Your task to perform on an android device: uninstall "Speedtest by Ookla" Image 0: 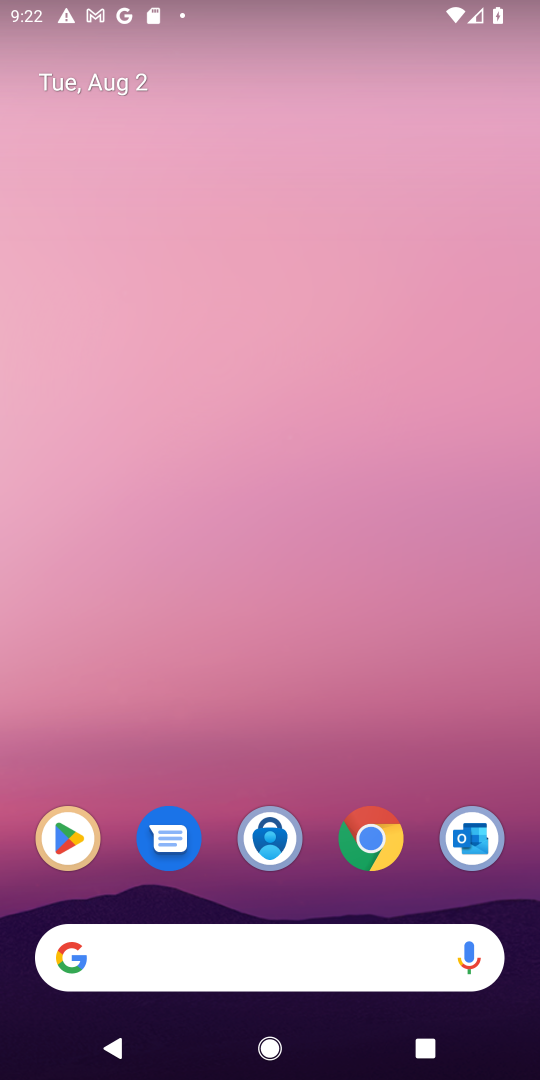
Step 0: drag from (305, 788) to (305, 95)
Your task to perform on an android device: uninstall "Speedtest by Ookla" Image 1: 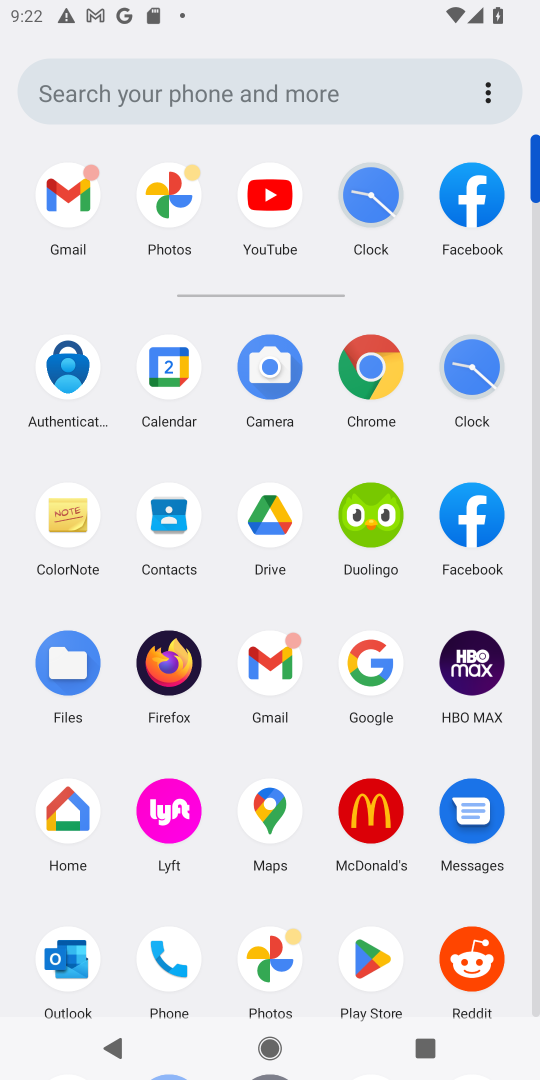
Step 1: click (375, 942)
Your task to perform on an android device: uninstall "Speedtest by Ookla" Image 2: 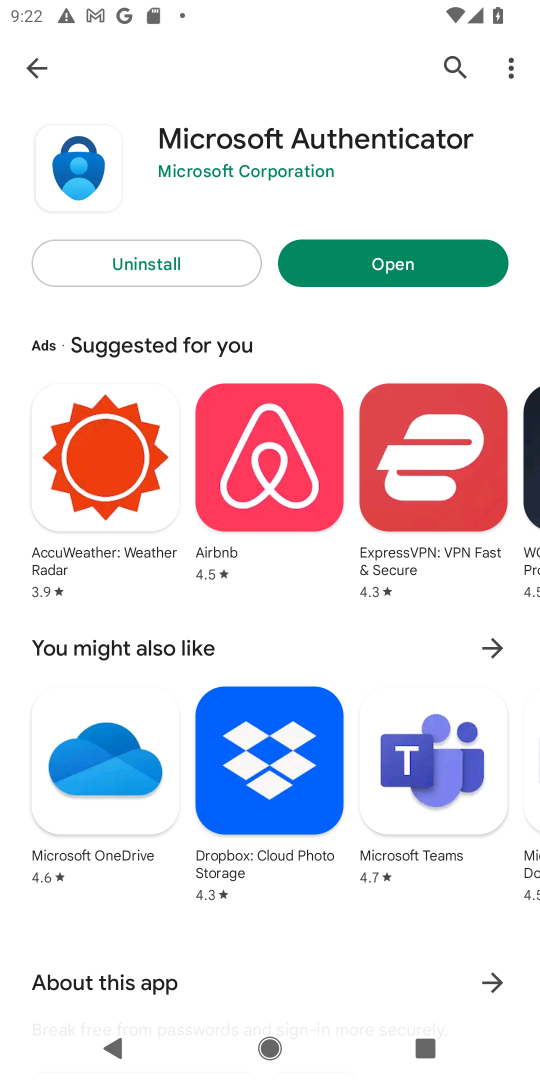
Step 2: click (453, 62)
Your task to perform on an android device: uninstall "Speedtest by Ookla" Image 3: 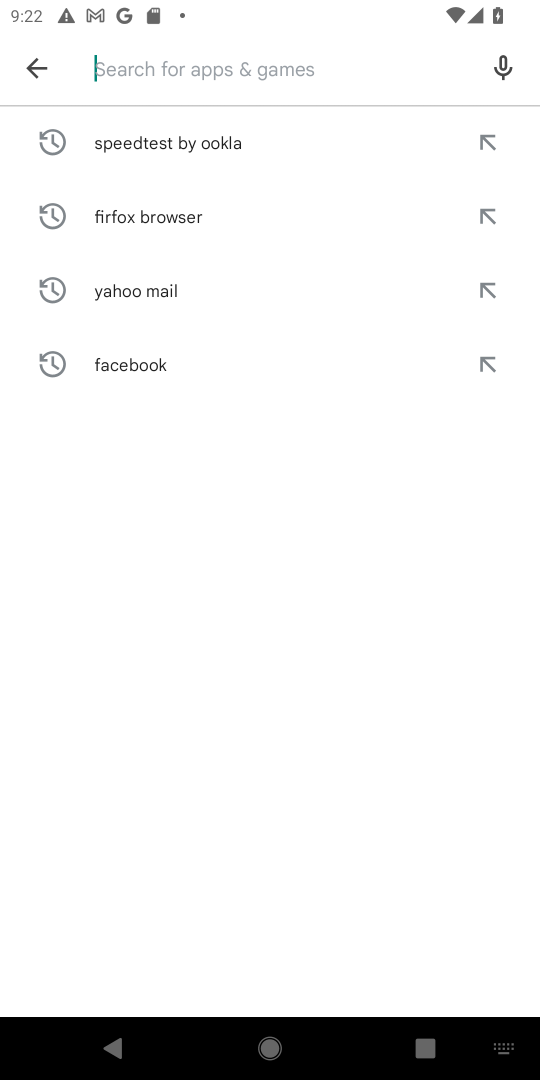
Step 3: click (398, 77)
Your task to perform on an android device: uninstall "Speedtest by Ookla" Image 4: 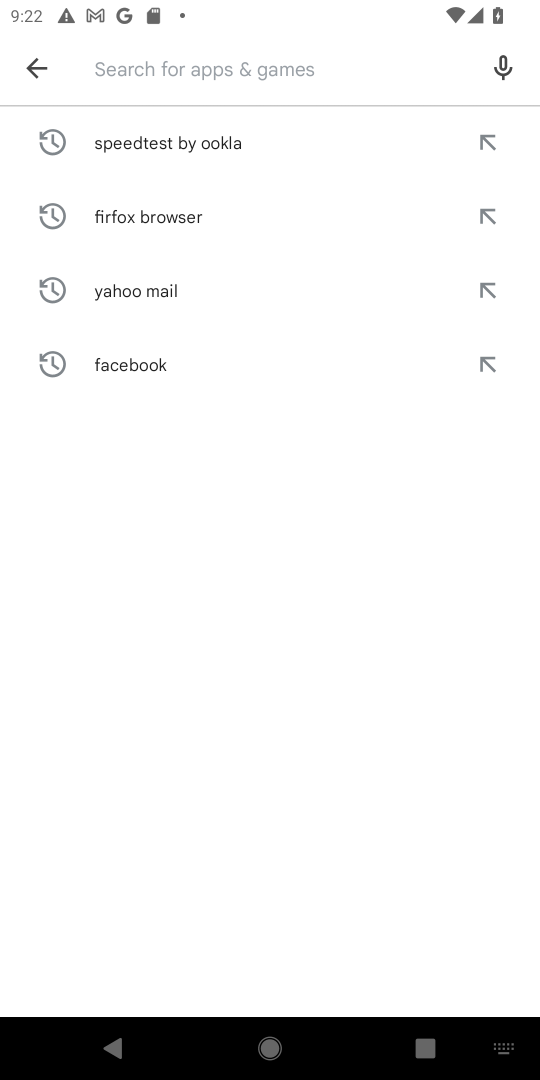
Step 4: click (289, 152)
Your task to perform on an android device: uninstall "Speedtest by Ookla" Image 5: 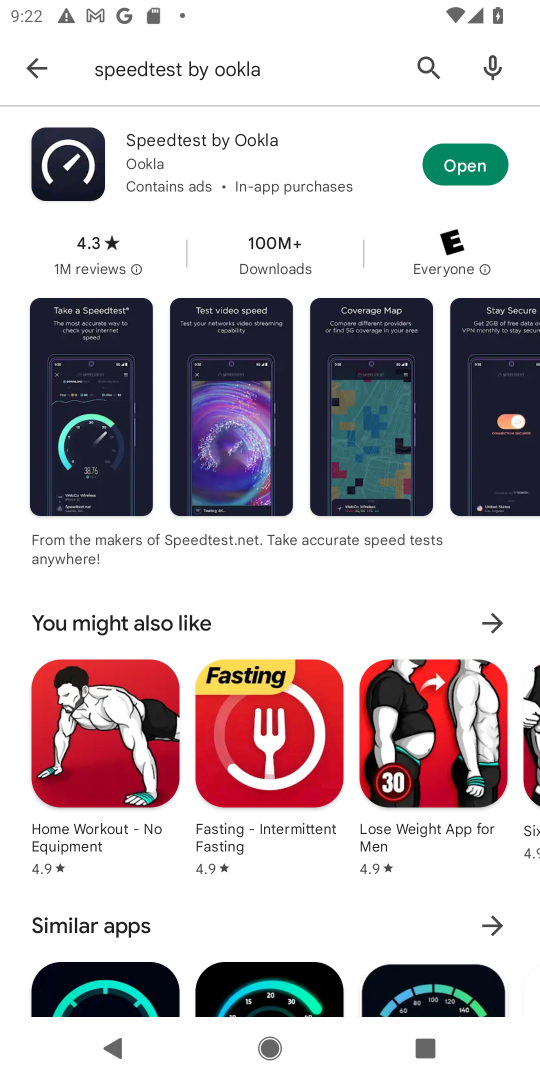
Step 5: task complete